Your task to perform on an android device: Go to display settings Image 0: 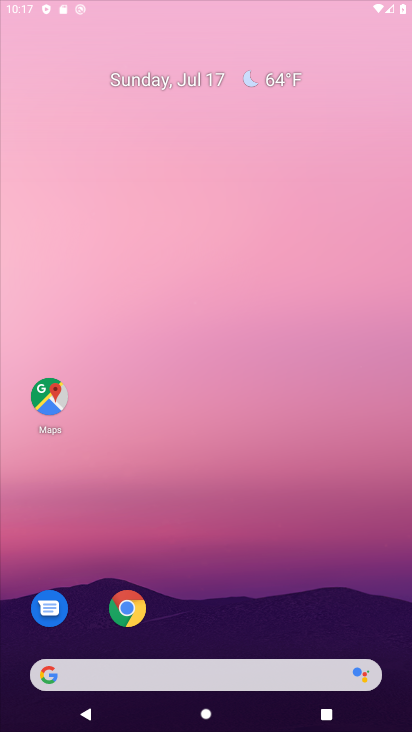
Step 0: drag from (391, 659) to (197, 7)
Your task to perform on an android device: Go to display settings Image 1: 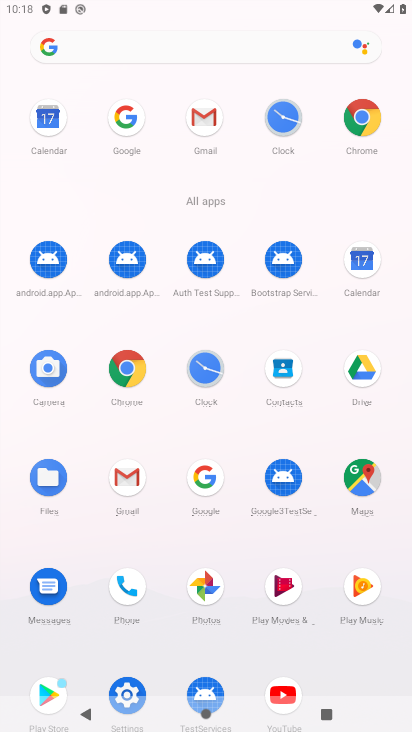
Step 1: click (125, 684)
Your task to perform on an android device: Go to display settings Image 2: 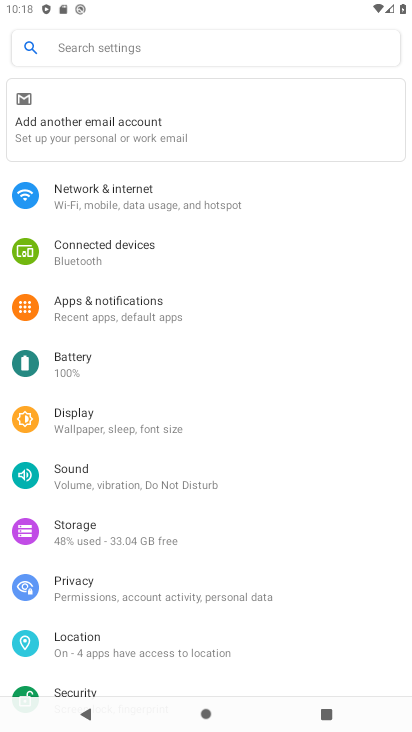
Step 2: click (118, 416)
Your task to perform on an android device: Go to display settings Image 3: 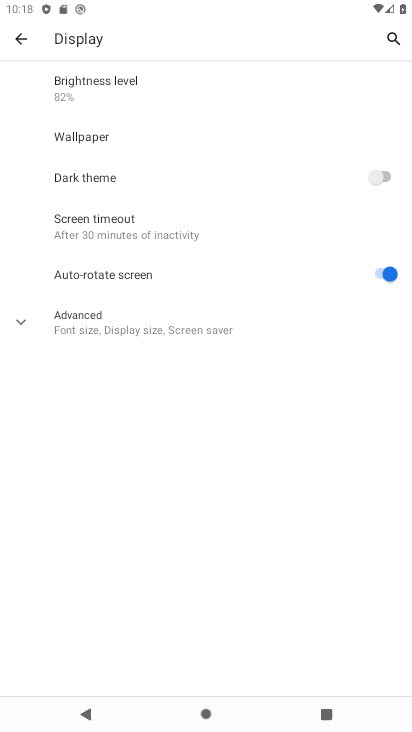
Step 3: task complete